Your task to perform on an android device: turn off picture-in-picture Image 0: 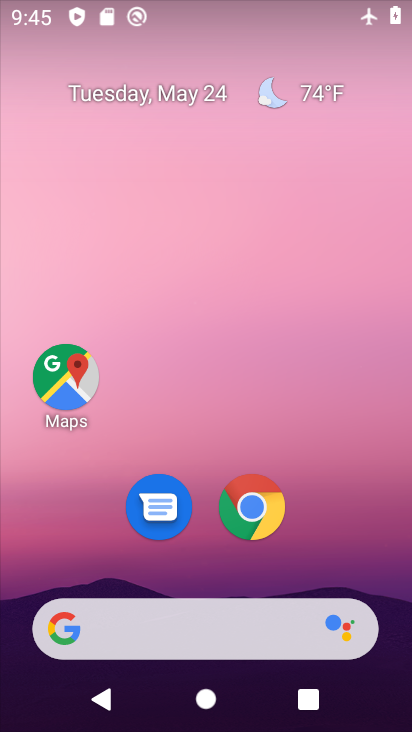
Step 0: drag from (234, 711) to (156, 23)
Your task to perform on an android device: turn off picture-in-picture Image 1: 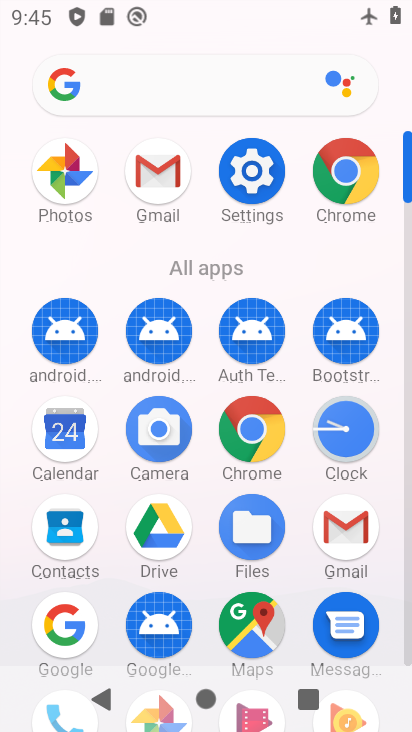
Step 1: click (247, 182)
Your task to perform on an android device: turn off picture-in-picture Image 2: 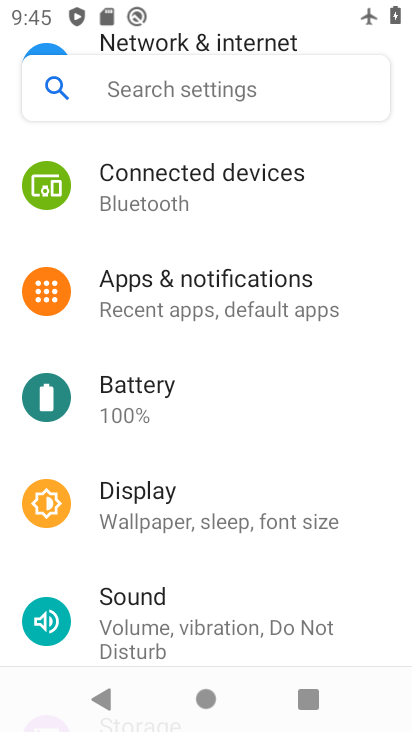
Step 2: click (212, 283)
Your task to perform on an android device: turn off picture-in-picture Image 3: 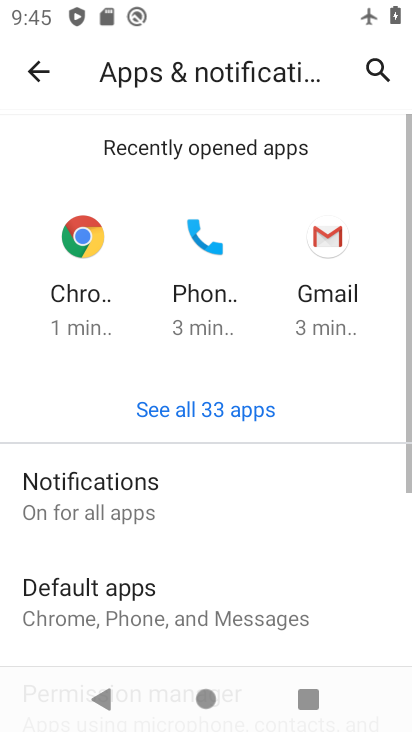
Step 3: drag from (155, 633) to (157, 290)
Your task to perform on an android device: turn off picture-in-picture Image 4: 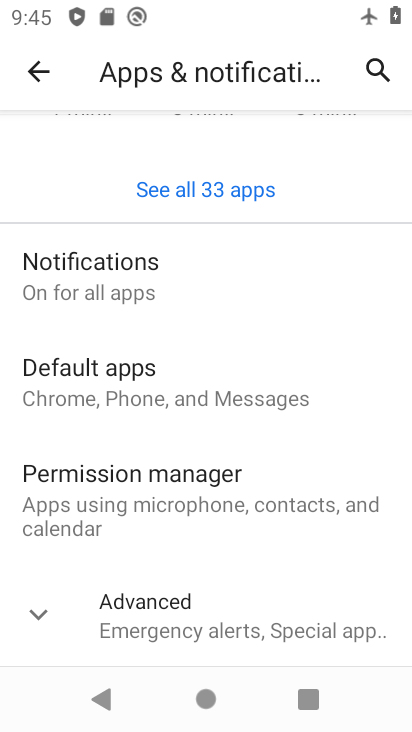
Step 4: click (150, 610)
Your task to perform on an android device: turn off picture-in-picture Image 5: 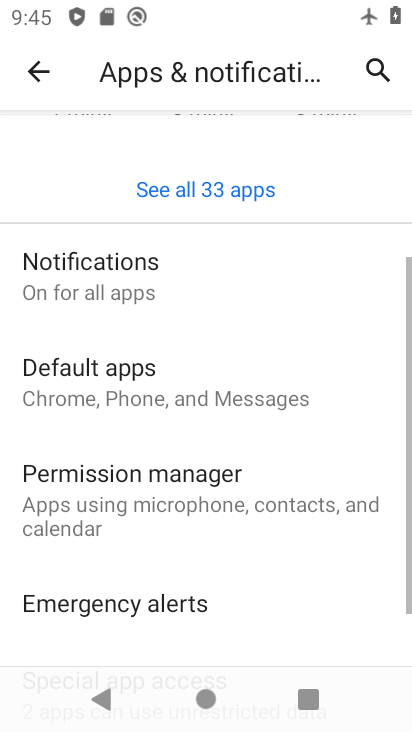
Step 5: drag from (179, 596) to (164, 246)
Your task to perform on an android device: turn off picture-in-picture Image 6: 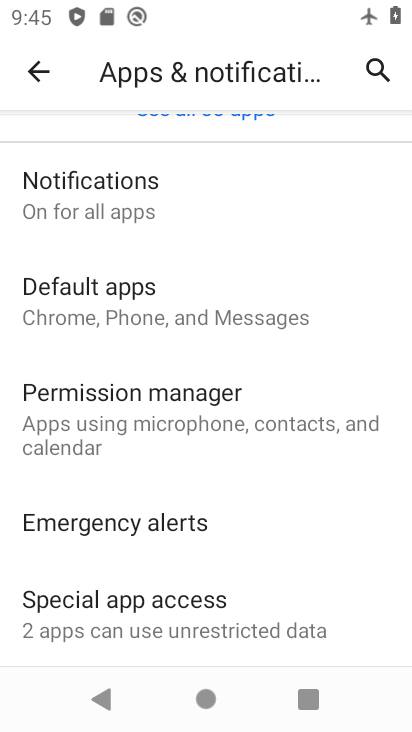
Step 6: click (166, 598)
Your task to perform on an android device: turn off picture-in-picture Image 7: 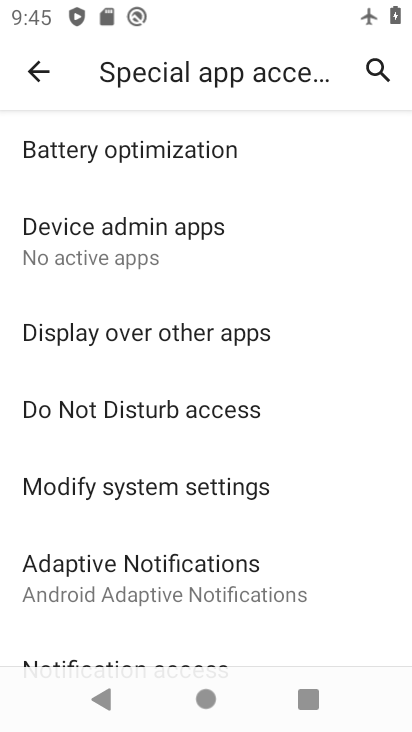
Step 7: drag from (171, 596) to (167, 234)
Your task to perform on an android device: turn off picture-in-picture Image 8: 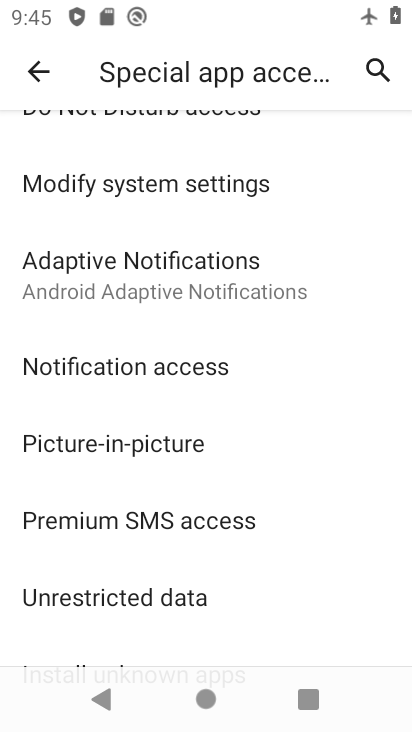
Step 8: click (109, 438)
Your task to perform on an android device: turn off picture-in-picture Image 9: 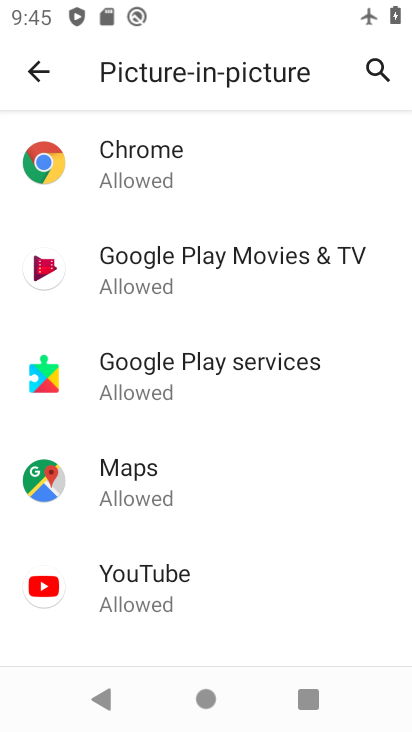
Step 9: click (147, 574)
Your task to perform on an android device: turn off picture-in-picture Image 10: 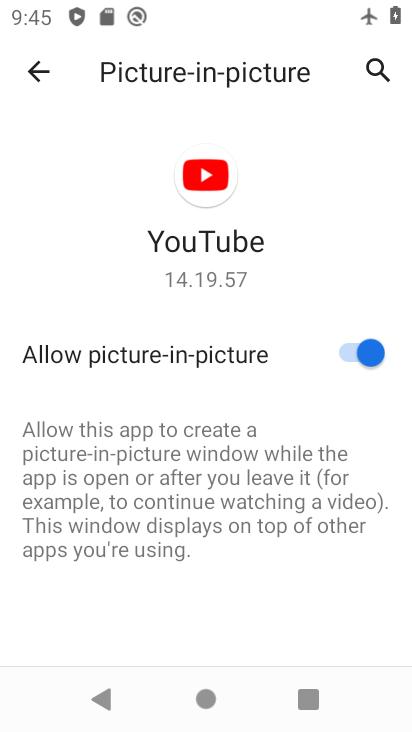
Step 10: click (347, 344)
Your task to perform on an android device: turn off picture-in-picture Image 11: 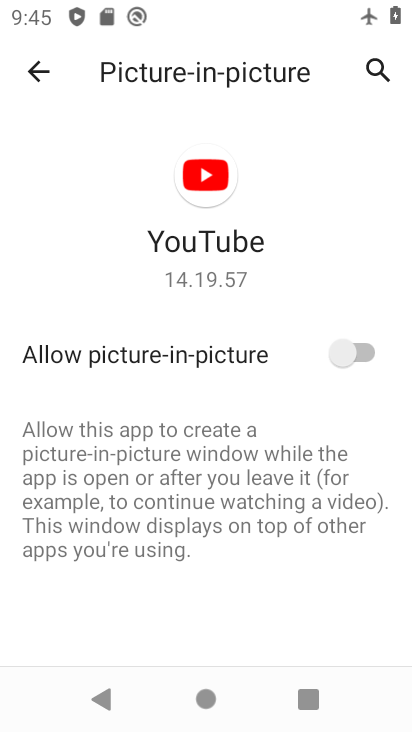
Step 11: task complete